Your task to perform on an android device: manage bookmarks in the chrome app Image 0: 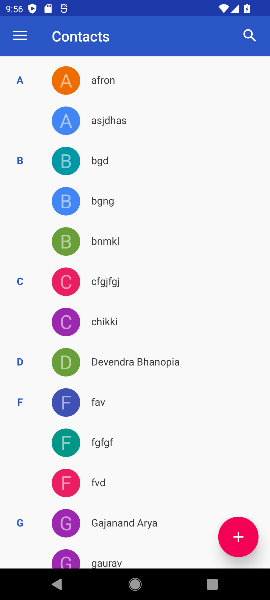
Step 0: press home button
Your task to perform on an android device: manage bookmarks in the chrome app Image 1: 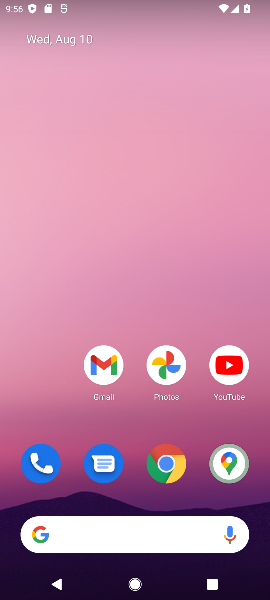
Step 1: click (157, 455)
Your task to perform on an android device: manage bookmarks in the chrome app Image 2: 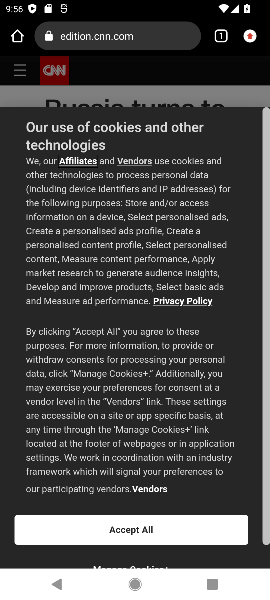
Step 2: click (250, 39)
Your task to perform on an android device: manage bookmarks in the chrome app Image 3: 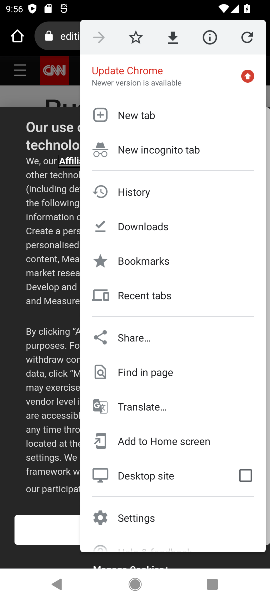
Step 3: click (139, 259)
Your task to perform on an android device: manage bookmarks in the chrome app Image 4: 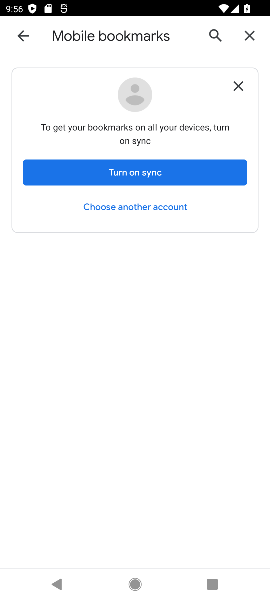
Step 4: click (19, 38)
Your task to perform on an android device: manage bookmarks in the chrome app Image 5: 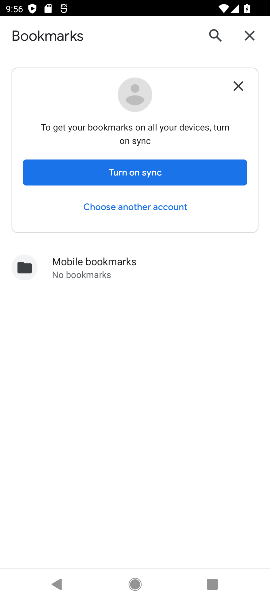
Step 5: task complete